Your task to perform on an android device: add a contact in the contacts app Image 0: 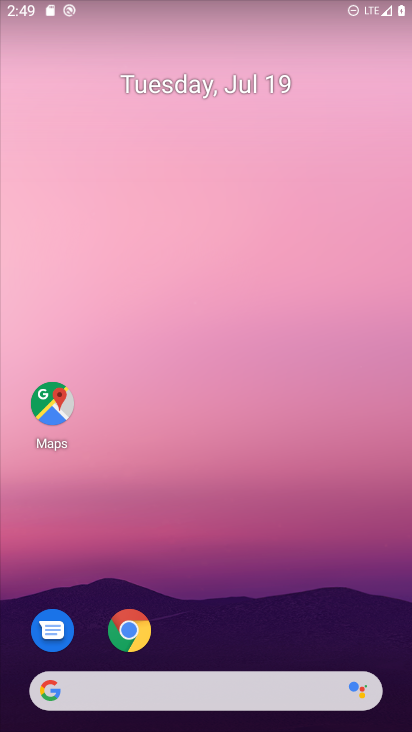
Step 0: drag from (343, 593) to (325, 132)
Your task to perform on an android device: add a contact in the contacts app Image 1: 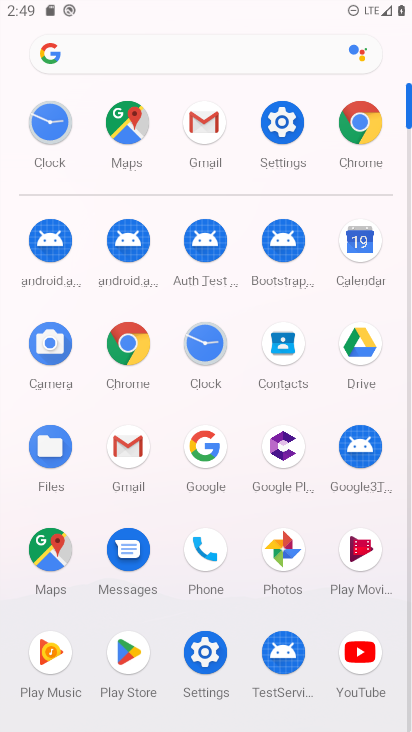
Step 1: click (279, 344)
Your task to perform on an android device: add a contact in the contacts app Image 2: 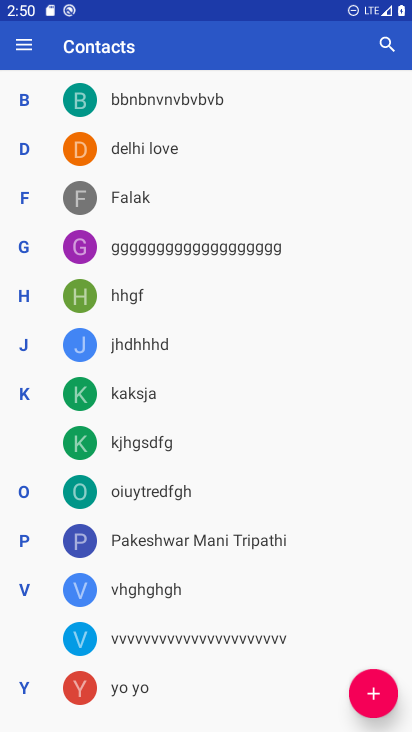
Step 2: click (374, 694)
Your task to perform on an android device: add a contact in the contacts app Image 3: 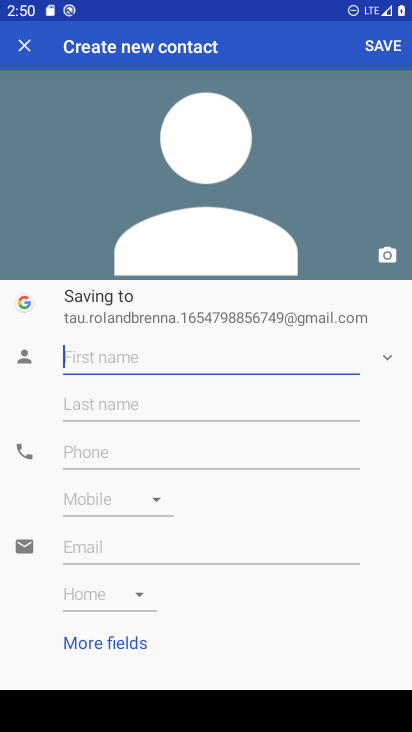
Step 3: type "iuytrgj"
Your task to perform on an android device: add a contact in the contacts app Image 4: 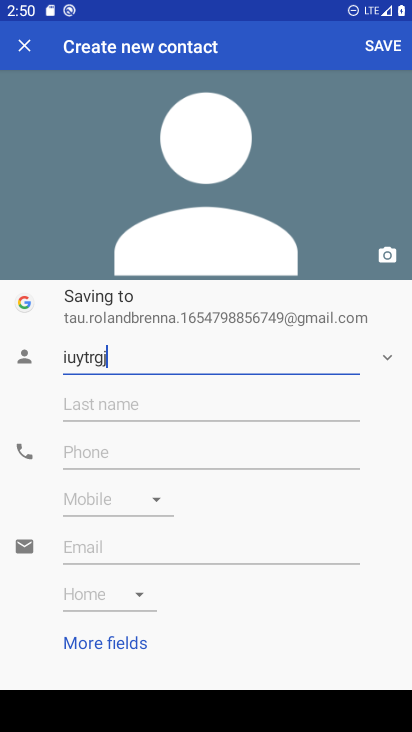
Step 4: click (116, 454)
Your task to perform on an android device: add a contact in the contacts app Image 5: 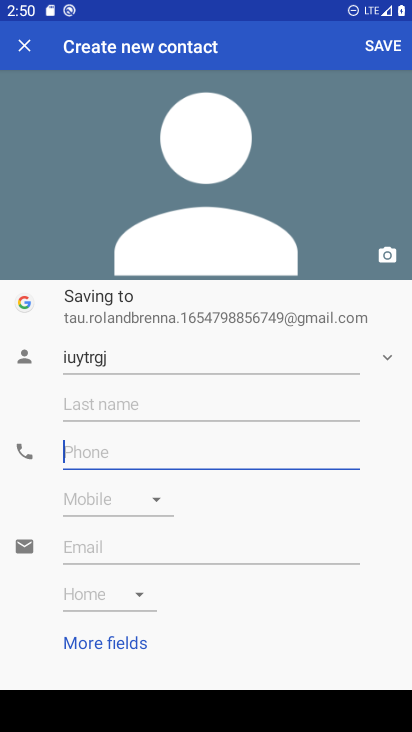
Step 5: type "09876543"
Your task to perform on an android device: add a contact in the contacts app Image 6: 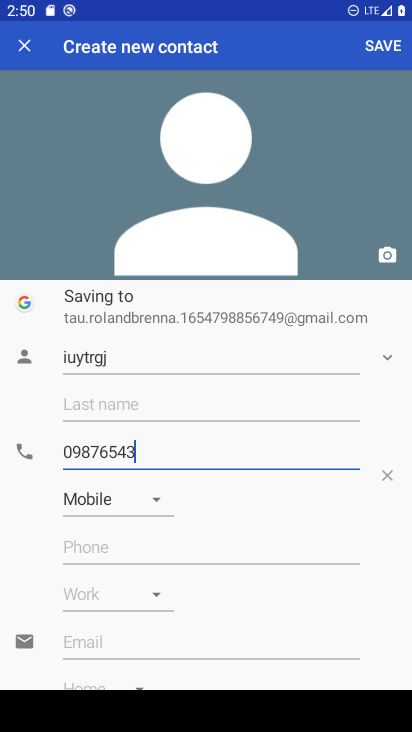
Step 6: click (382, 45)
Your task to perform on an android device: add a contact in the contacts app Image 7: 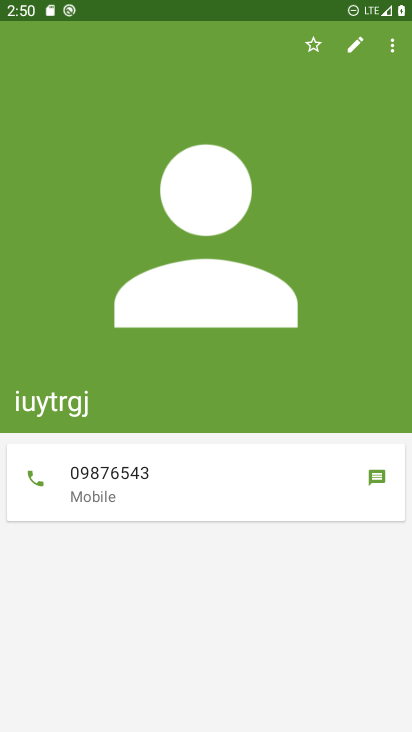
Step 7: task complete